Your task to perform on an android device: Open Google Maps Image 0: 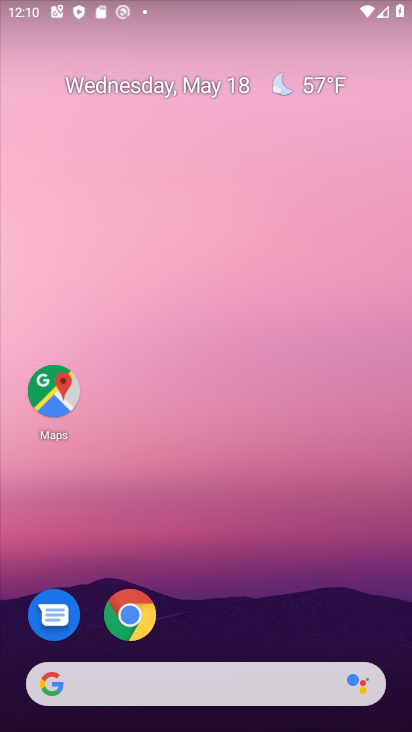
Step 0: drag from (308, 641) to (239, 131)
Your task to perform on an android device: Open Google Maps Image 1: 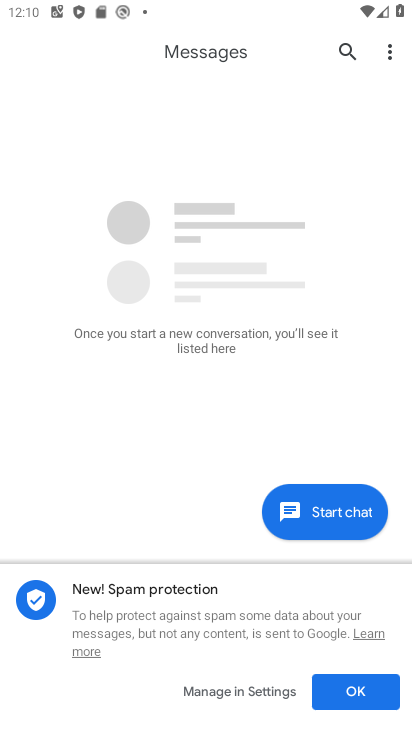
Step 1: press home button
Your task to perform on an android device: Open Google Maps Image 2: 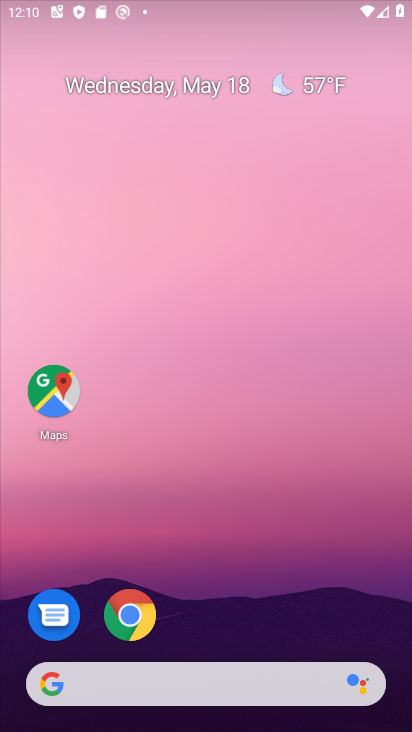
Step 2: drag from (322, 602) to (196, 42)
Your task to perform on an android device: Open Google Maps Image 3: 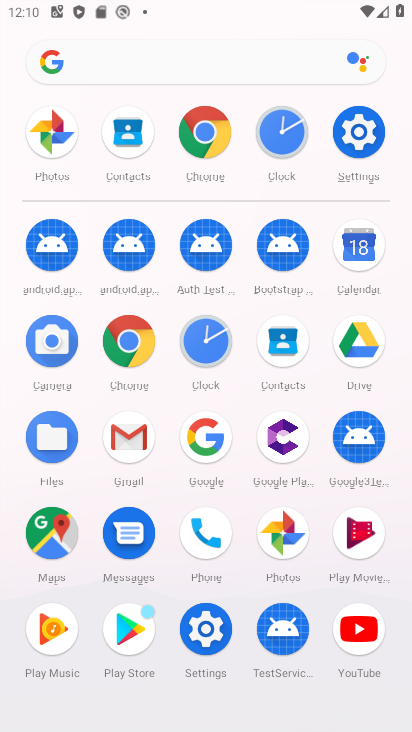
Step 3: click (38, 541)
Your task to perform on an android device: Open Google Maps Image 4: 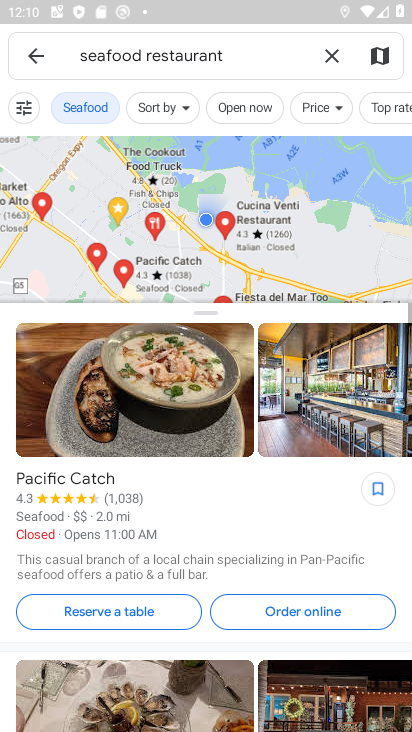
Step 4: click (329, 56)
Your task to perform on an android device: Open Google Maps Image 5: 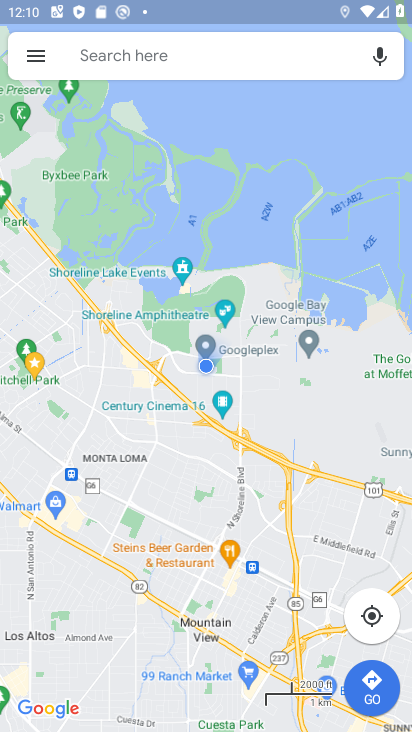
Step 5: task complete